Your task to perform on an android device: Open Youtube and go to the subscriptions tab Image 0: 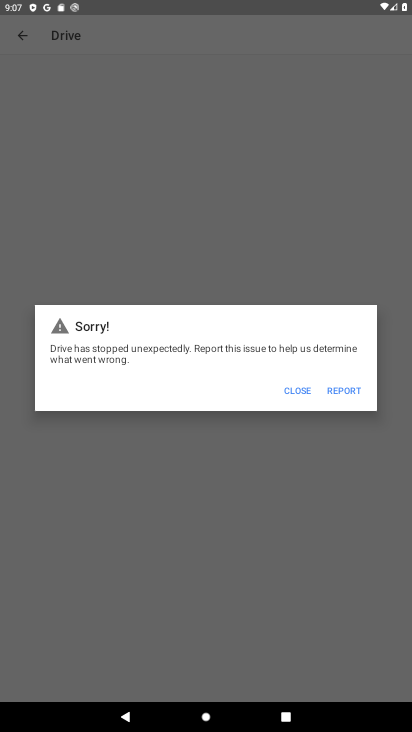
Step 0: press home button
Your task to perform on an android device: Open Youtube and go to the subscriptions tab Image 1: 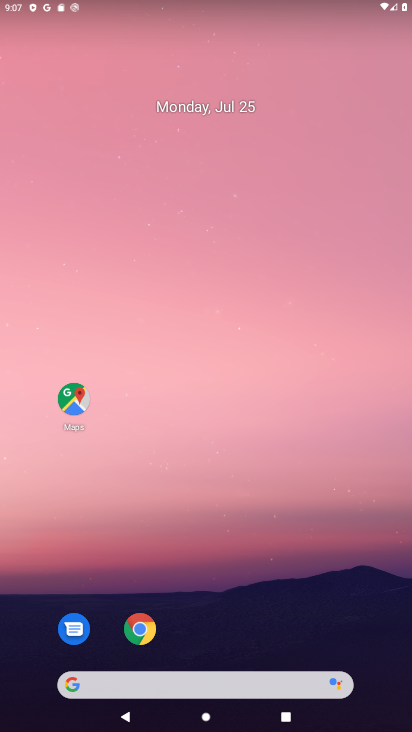
Step 1: drag from (262, 637) to (294, 86)
Your task to perform on an android device: Open Youtube and go to the subscriptions tab Image 2: 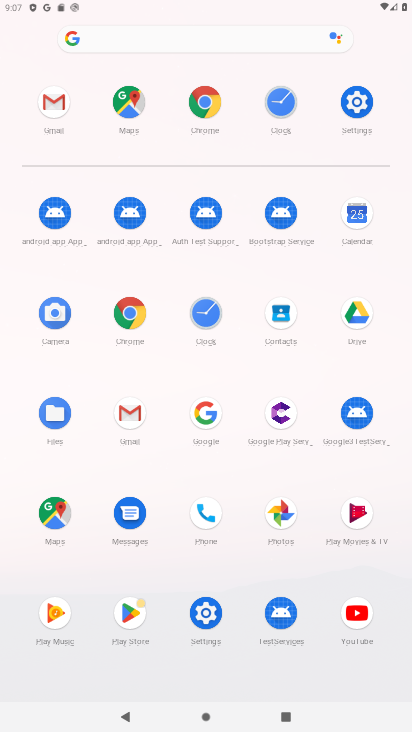
Step 2: click (367, 611)
Your task to perform on an android device: Open Youtube and go to the subscriptions tab Image 3: 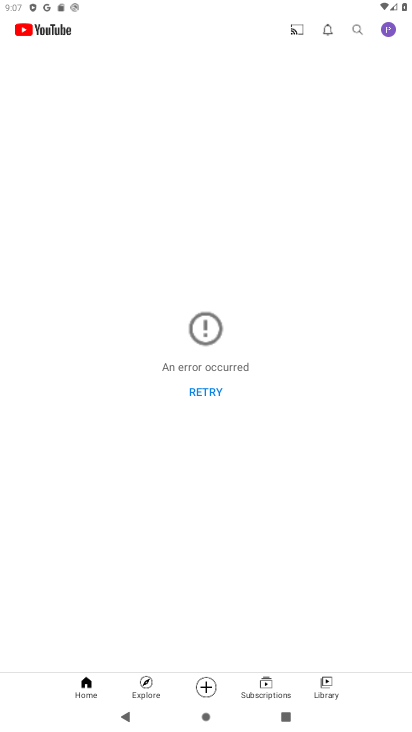
Step 3: click (263, 678)
Your task to perform on an android device: Open Youtube and go to the subscriptions tab Image 4: 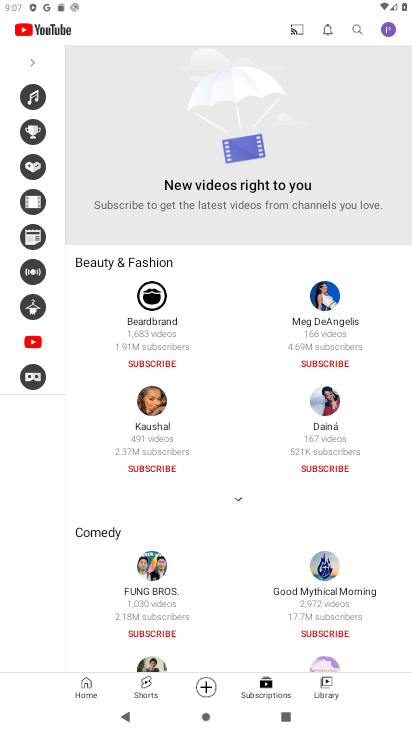
Step 4: task complete